Your task to perform on an android device: turn vacation reply on in the gmail app Image 0: 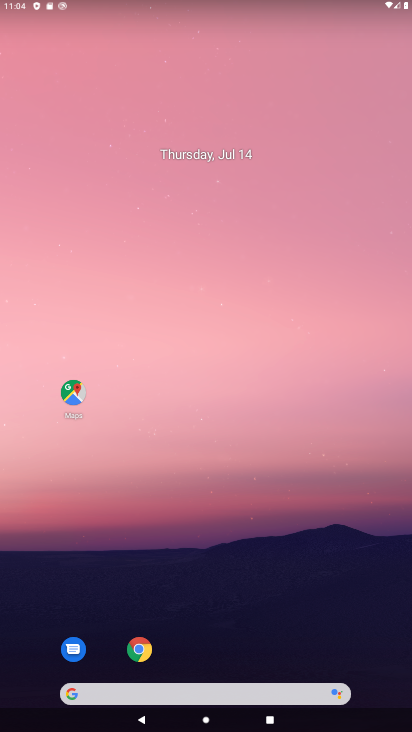
Step 0: drag from (192, 629) to (166, 130)
Your task to perform on an android device: turn vacation reply on in the gmail app Image 1: 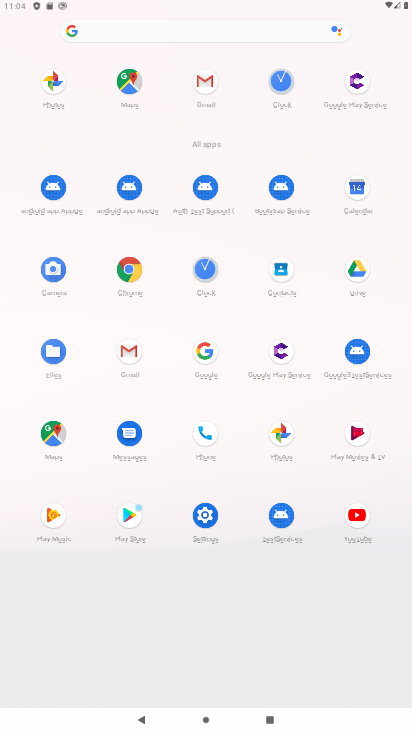
Step 1: click (202, 86)
Your task to perform on an android device: turn vacation reply on in the gmail app Image 2: 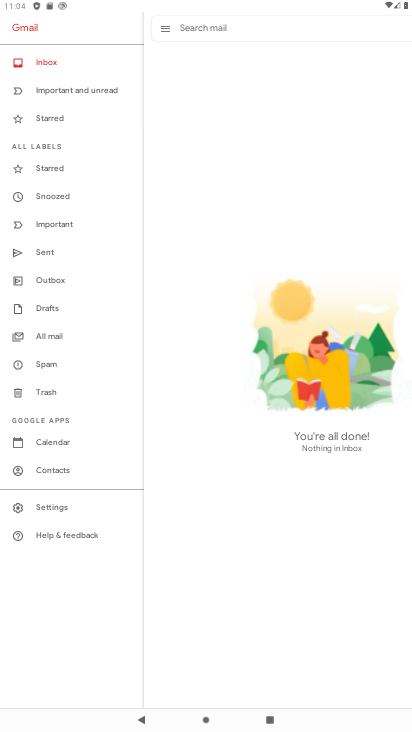
Step 2: click (65, 514)
Your task to perform on an android device: turn vacation reply on in the gmail app Image 3: 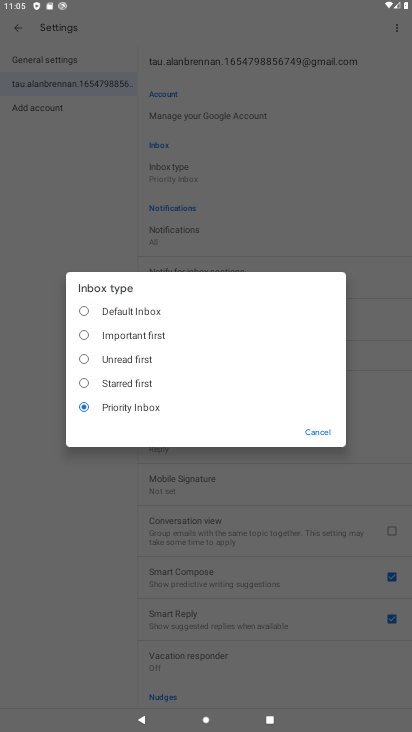
Step 3: press back button
Your task to perform on an android device: turn vacation reply on in the gmail app Image 4: 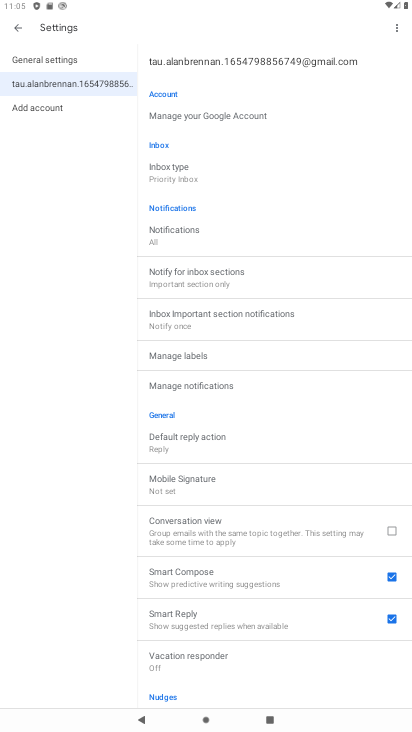
Step 4: drag from (262, 582) to (271, 349)
Your task to perform on an android device: turn vacation reply on in the gmail app Image 5: 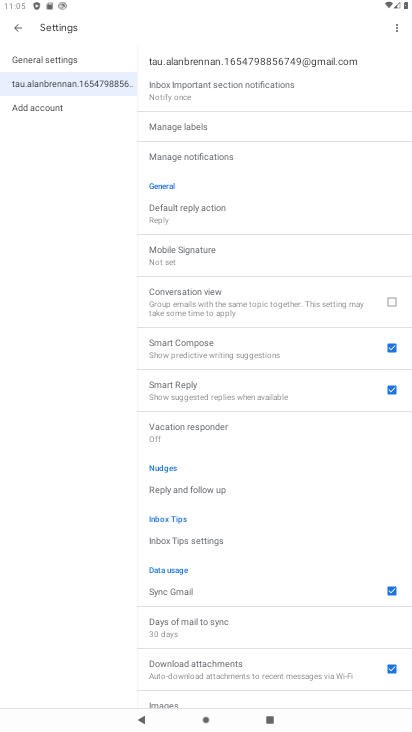
Step 5: click (224, 425)
Your task to perform on an android device: turn vacation reply on in the gmail app Image 6: 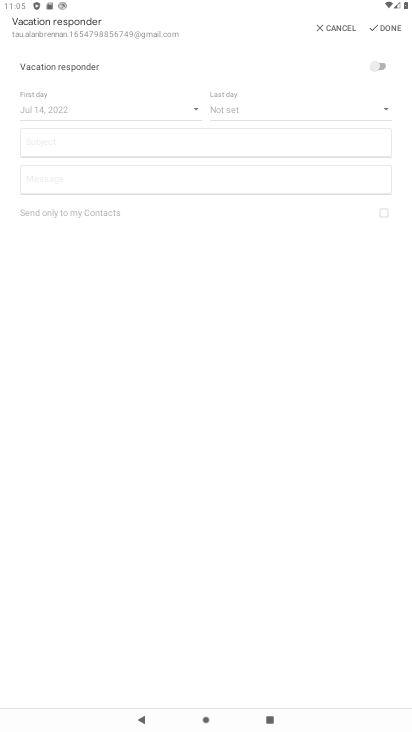
Step 6: click (376, 65)
Your task to perform on an android device: turn vacation reply on in the gmail app Image 7: 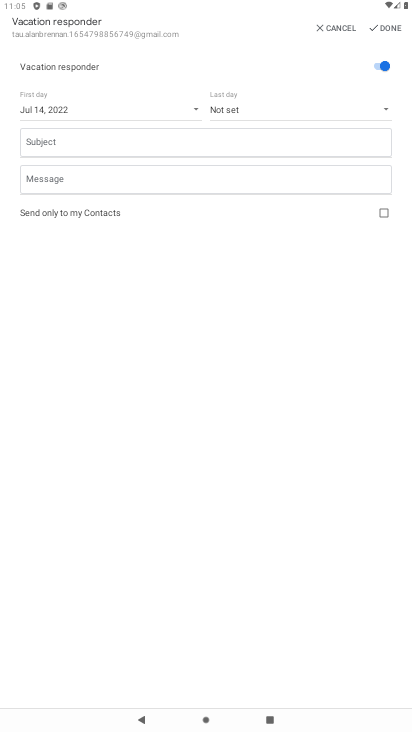
Step 7: task complete